Your task to perform on an android device: change the upload size in google photos Image 0: 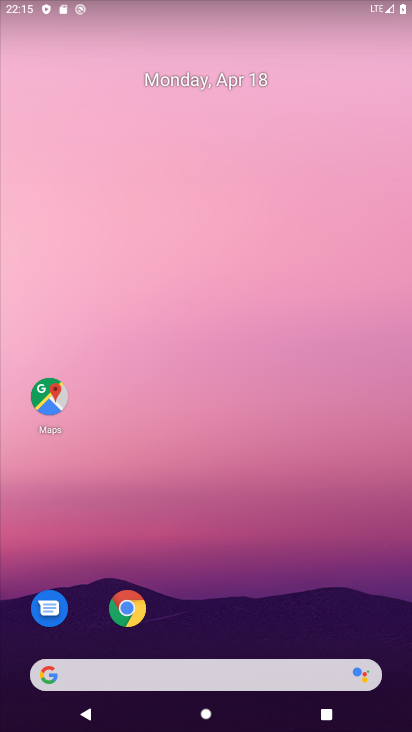
Step 0: drag from (231, 625) to (215, 50)
Your task to perform on an android device: change the upload size in google photos Image 1: 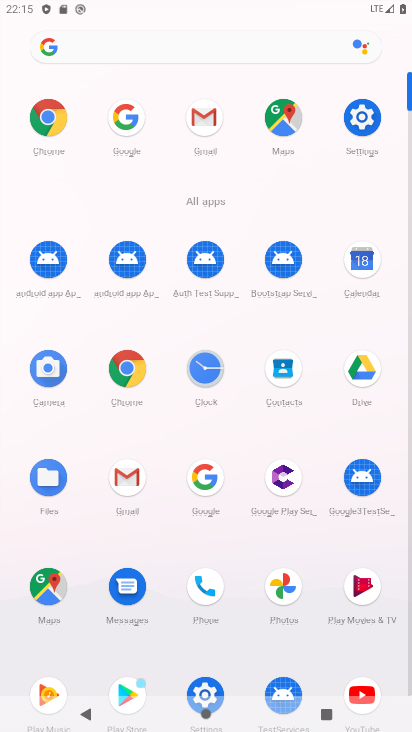
Step 1: click (278, 588)
Your task to perform on an android device: change the upload size in google photos Image 2: 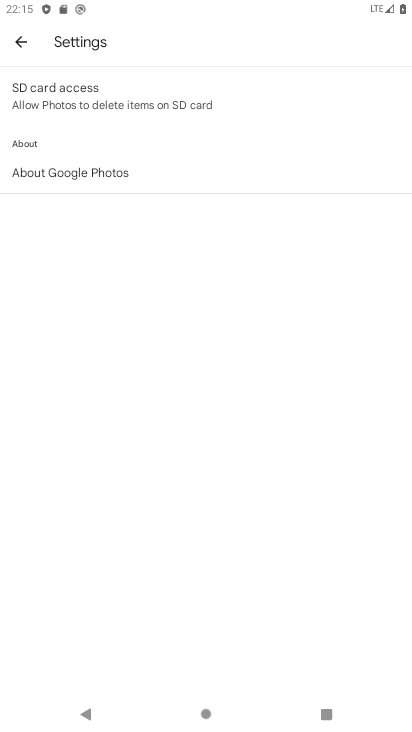
Step 2: click (21, 48)
Your task to perform on an android device: change the upload size in google photos Image 3: 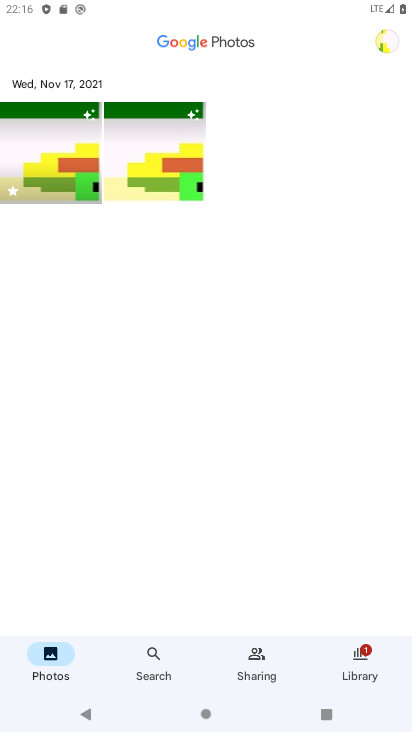
Step 3: click (20, 36)
Your task to perform on an android device: change the upload size in google photos Image 4: 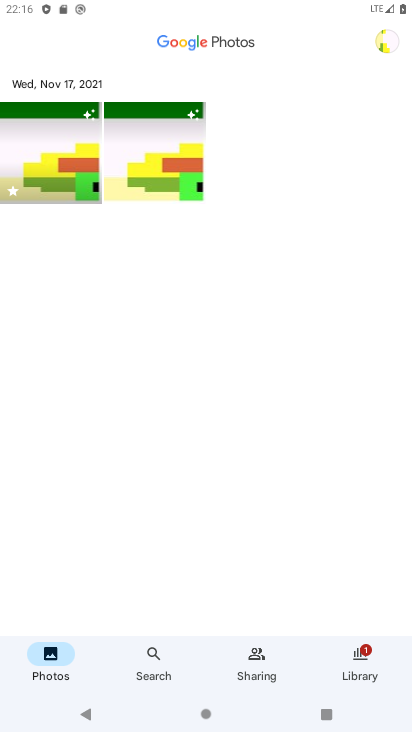
Step 4: drag from (174, 445) to (166, 328)
Your task to perform on an android device: change the upload size in google photos Image 5: 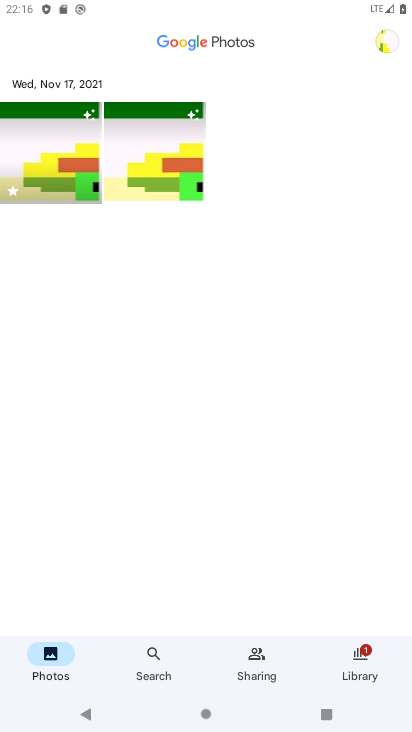
Step 5: click (380, 44)
Your task to perform on an android device: change the upload size in google photos Image 6: 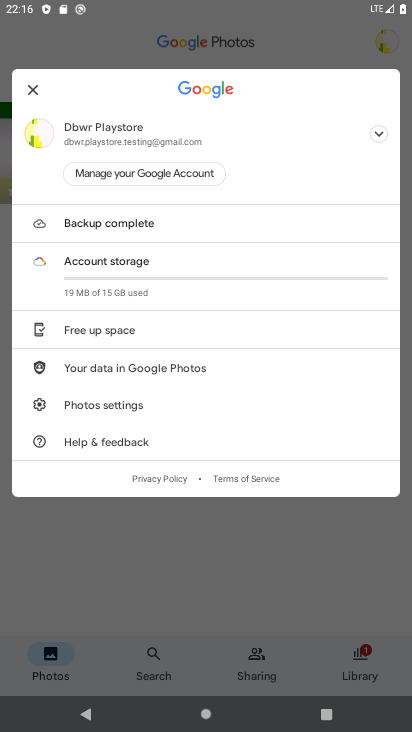
Step 6: click (146, 559)
Your task to perform on an android device: change the upload size in google photos Image 7: 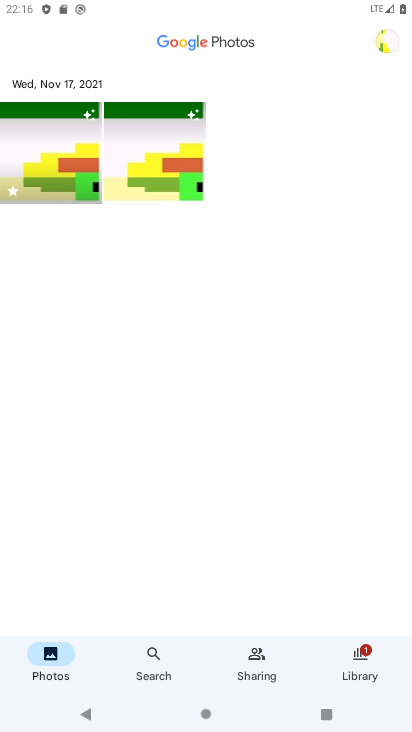
Step 7: click (160, 653)
Your task to perform on an android device: change the upload size in google photos Image 8: 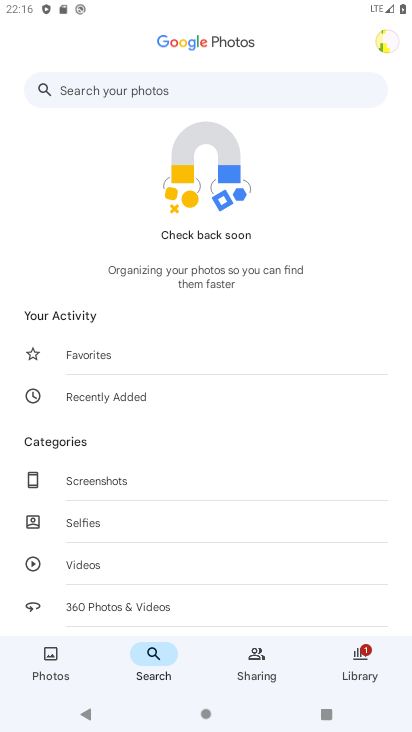
Step 8: click (271, 660)
Your task to perform on an android device: change the upload size in google photos Image 9: 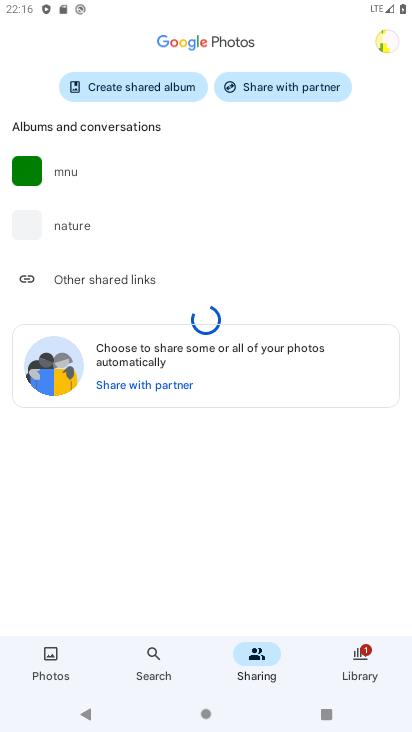
Step 9: click (352, 651)
Your task to perform on an android device: change the upload size in google photos Image 10: 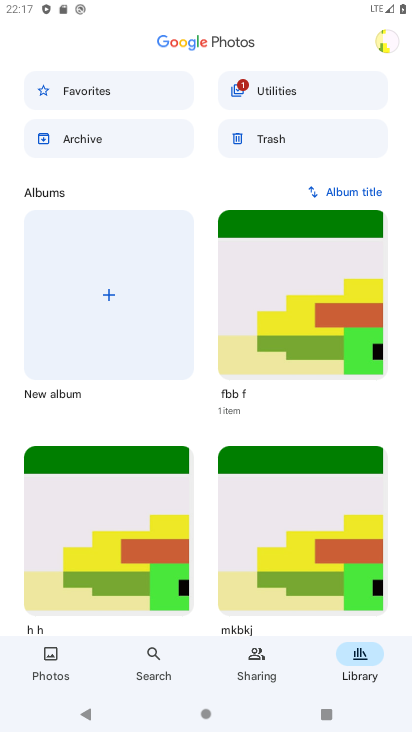
Step 10: task complete